Your task to perform on an android device: What's the weather going to be tomorrow? Image 0: 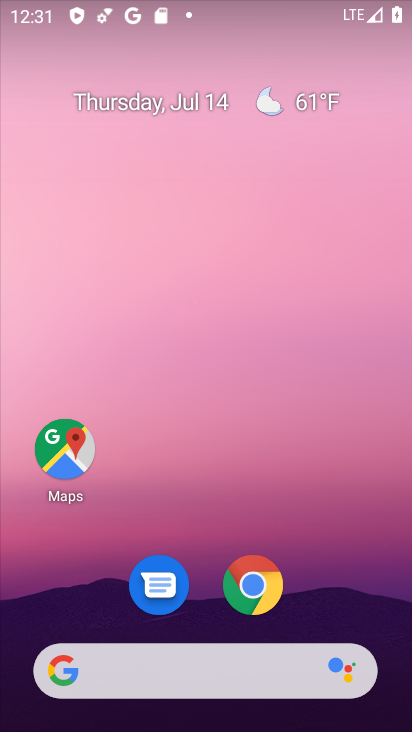
Step 0: click (290, 666)
Your task to perform on an android device: What's the weather going to be tomorrow? Image 1: 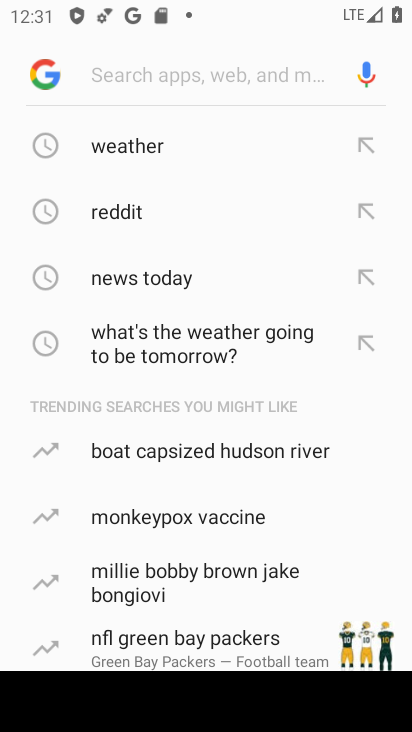
Step 1: click (105, 144)
Your task to perform on an android device: What's the weather going to be tomorrow? Image 2: 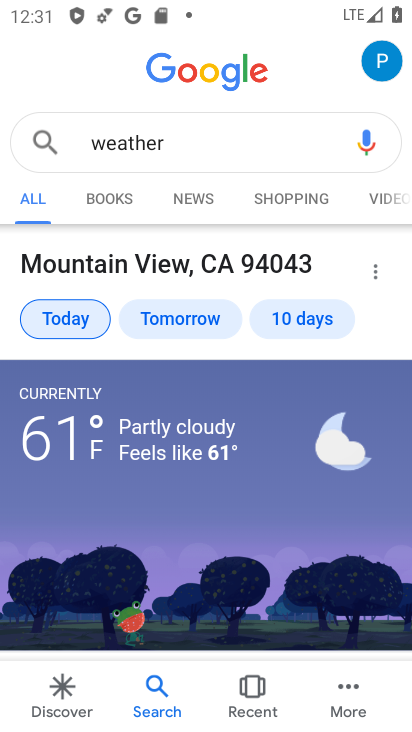
Step 2: click (97, 317)
Your task to perform on an android device: What's the weather going to be tomorrow? Image 3: 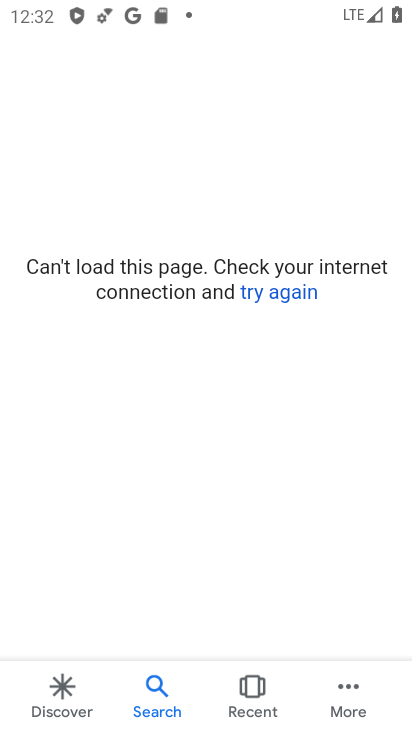
Step 3: click (288, 288)
Your task to perform on an android device: What's the weather going to be tomorrow? Image 4: 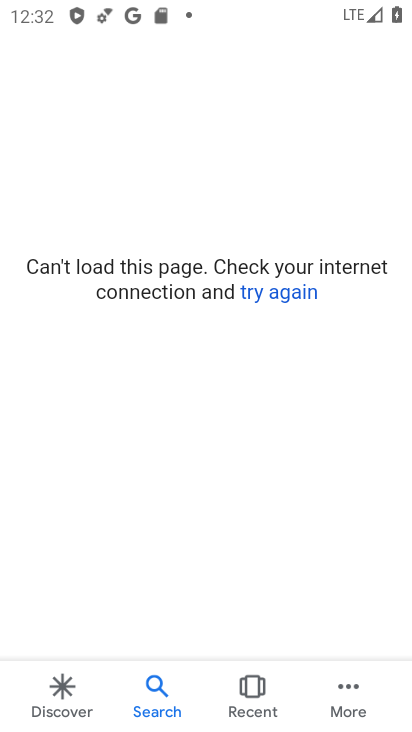
Step 4: task complete